Your task to perform on an android device: change the clock display to digital Image 0: 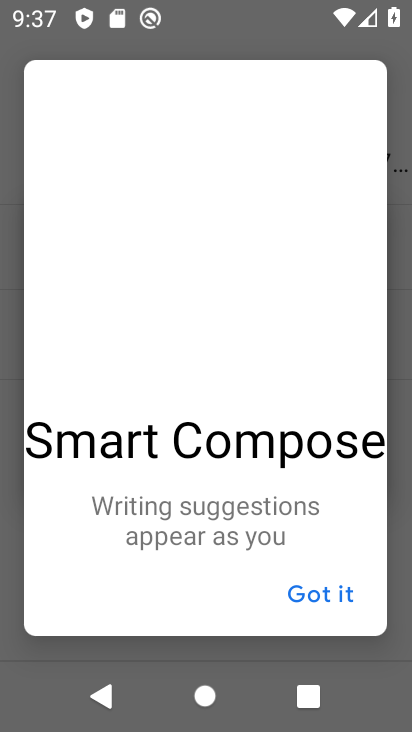
Step 0: click (308, 597)
Your task to perform on an android device: change the clock display to digital Image 1: 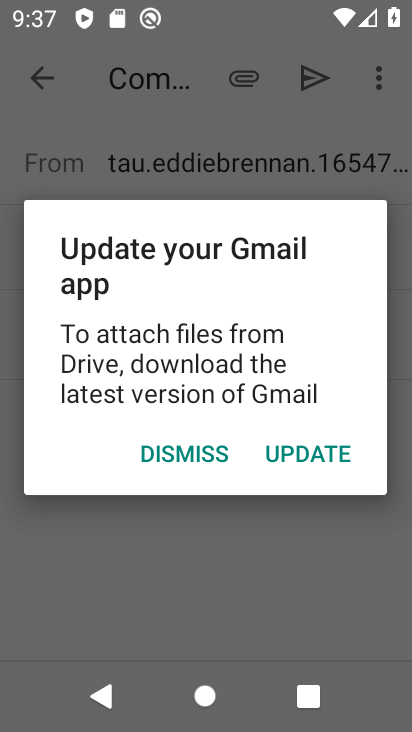
Step 1: click (137, 446)
Your task to perform on an android device: change the clock display to digital Image 2: 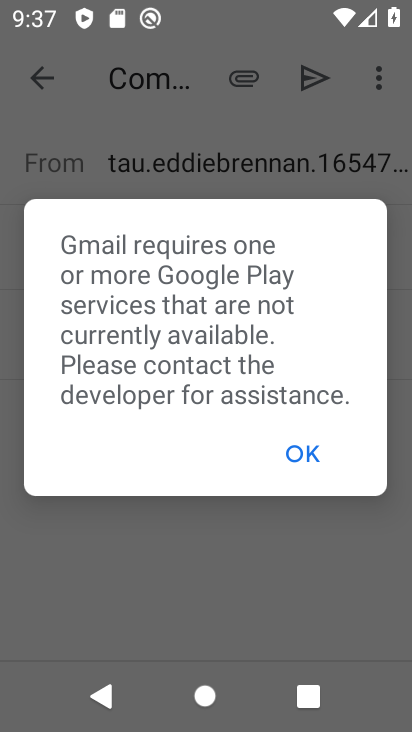
Step 2: click (303, 446)
Your task to perform on an android device: change the clock display to digital Image 3: 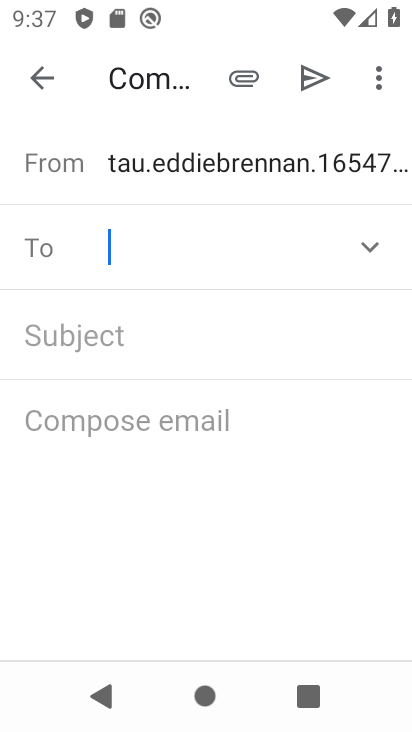
Step 3: press back button
Your task to perform on an android device: change the clock display to digital Image 4: 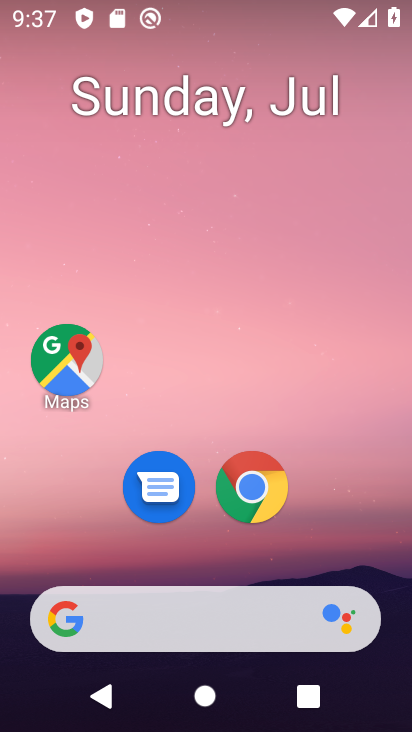
Step 4: drag from (208, 513) to (234, 5)
Your task to perform on an android device: change the clock display to digital Image 5: 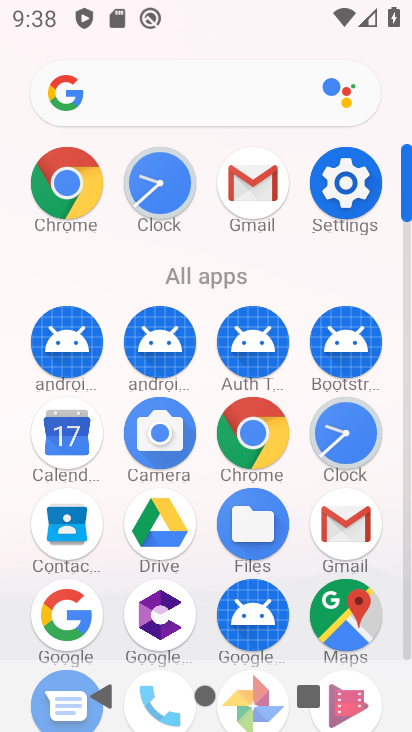
Step 5: click (159, 169)
Your task to perform on an android device: change the clock display to digital Image 6: 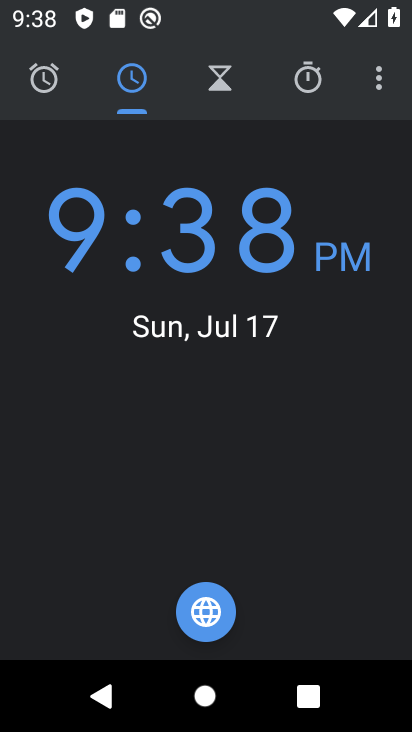
Step 6: click (375, 71)
Your task to perform on an android device: change the clock display to digital Image 7: 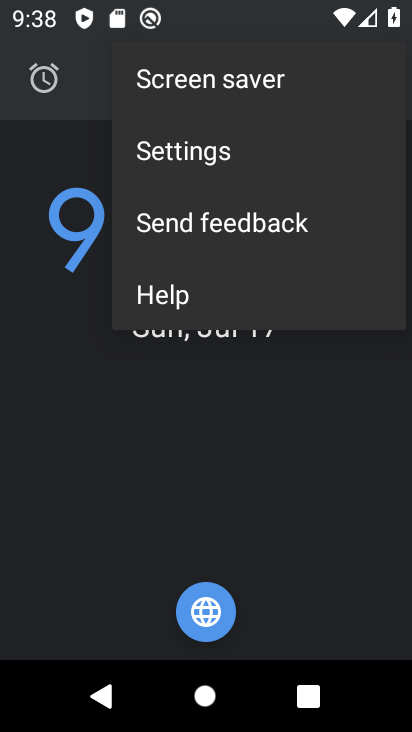
Step 7: click (234, 151)
Your task to perform on an android device: change the clock display to digital Image 8: 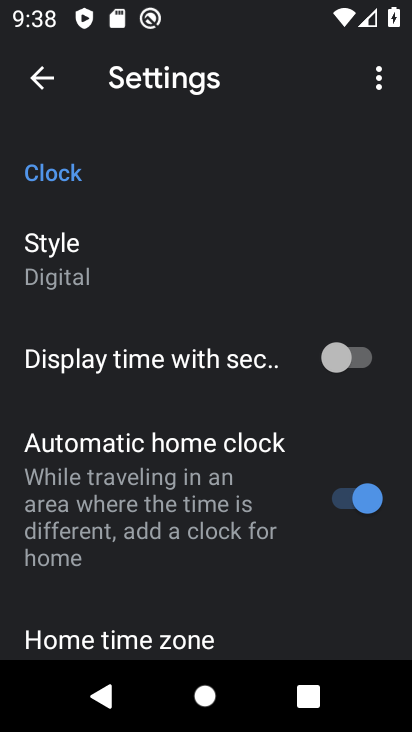
Step 8: task complete